Your task to perform on an android device: Open calendar and show me the fourth week of next month Image 0: 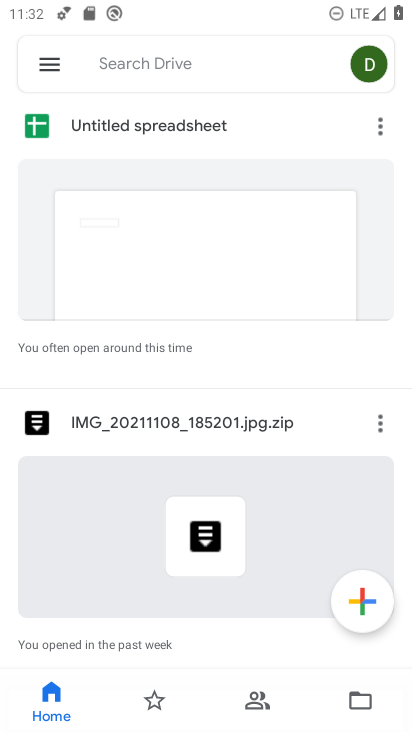
Step 0: press home button
Your task to perform on an android device: Open calendar and show me the fourth week of next month Image 1: 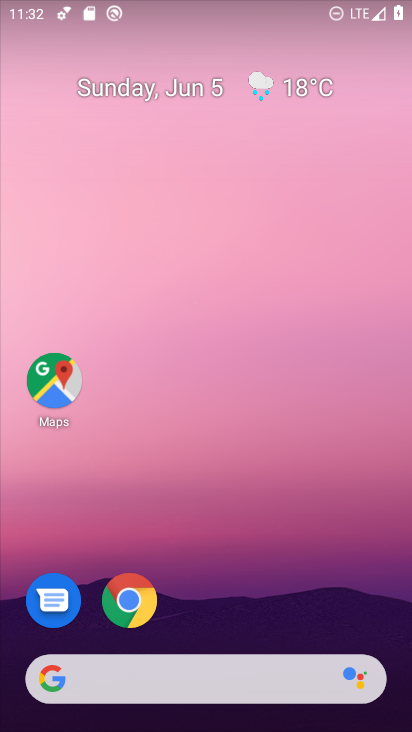
Step 1: drag from (209, 633) to (216, 167)
Your task to perform on an android device: Open calendar and show me the fourth week of next month Image 2: 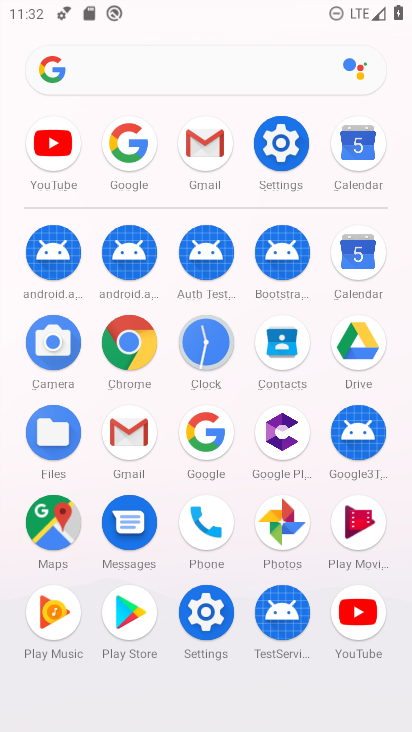
Step 2: click (358, 262)
Your task to perform on an android device: Open calendar and show me the fourth week of next month Image 3: 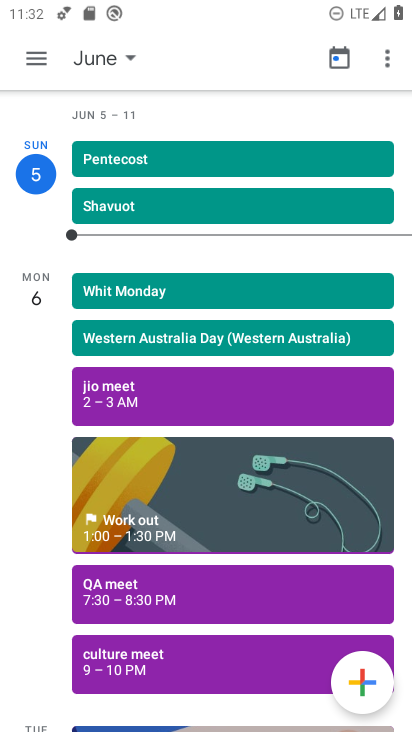
Step 3: click (127, 61)
Your task to perform on an android device: Open calendar and show me the fourth week of next month Image 4: 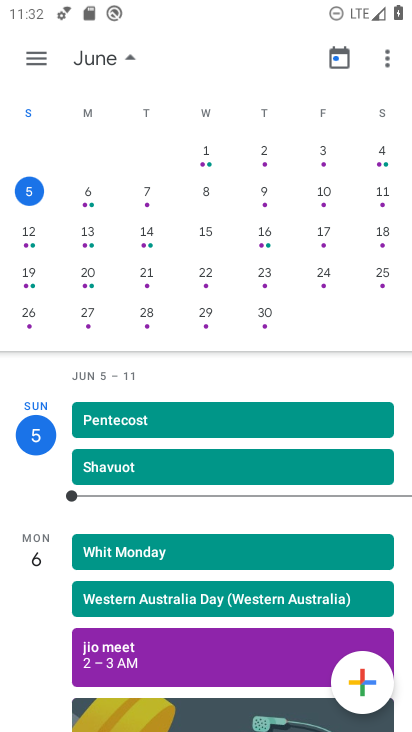
Step 4: drag from (338, 202) to (2, 194)
Your task to perform on an android device: Open calendar and show me the fourth week of next month Image 5: 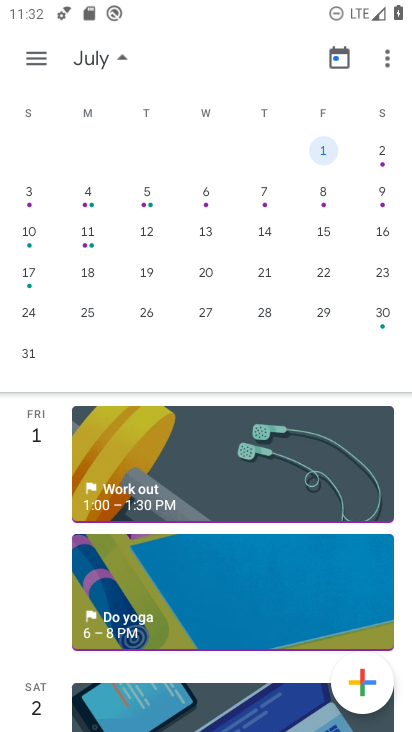
Step 5: click (23, 278)
Your task to perform on an android device: Open calendar and show me the fourth week of next month Image 6: 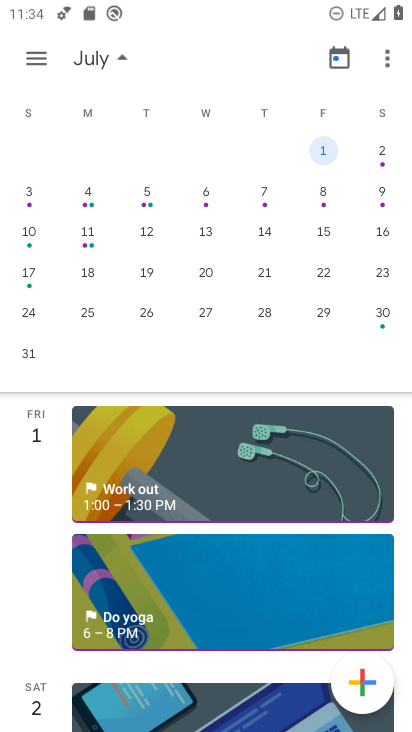
Step 6: task complete